Your task to perform on an android device: What's the weather? Image 0: 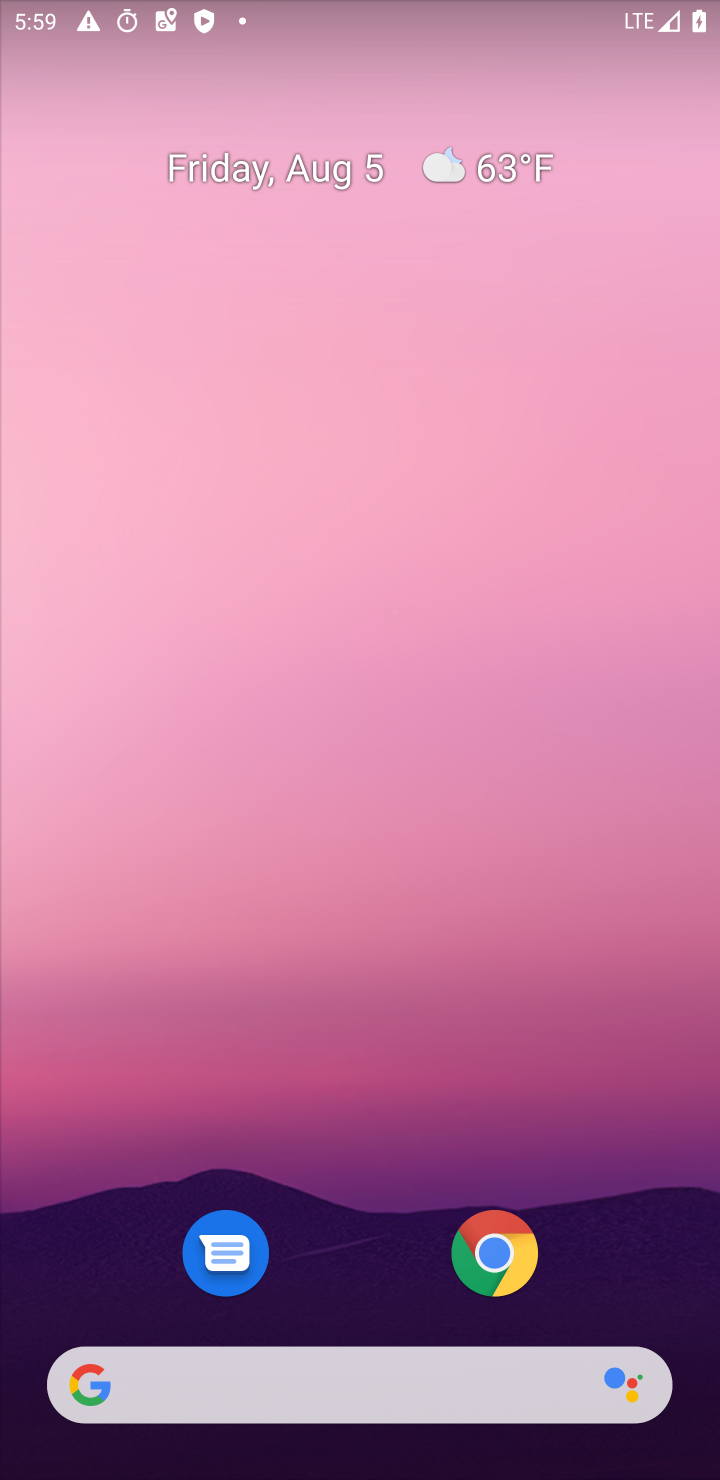
Step 0: click (311, 1381)
Your task to perform on an android device: What's the weather? Image 1: 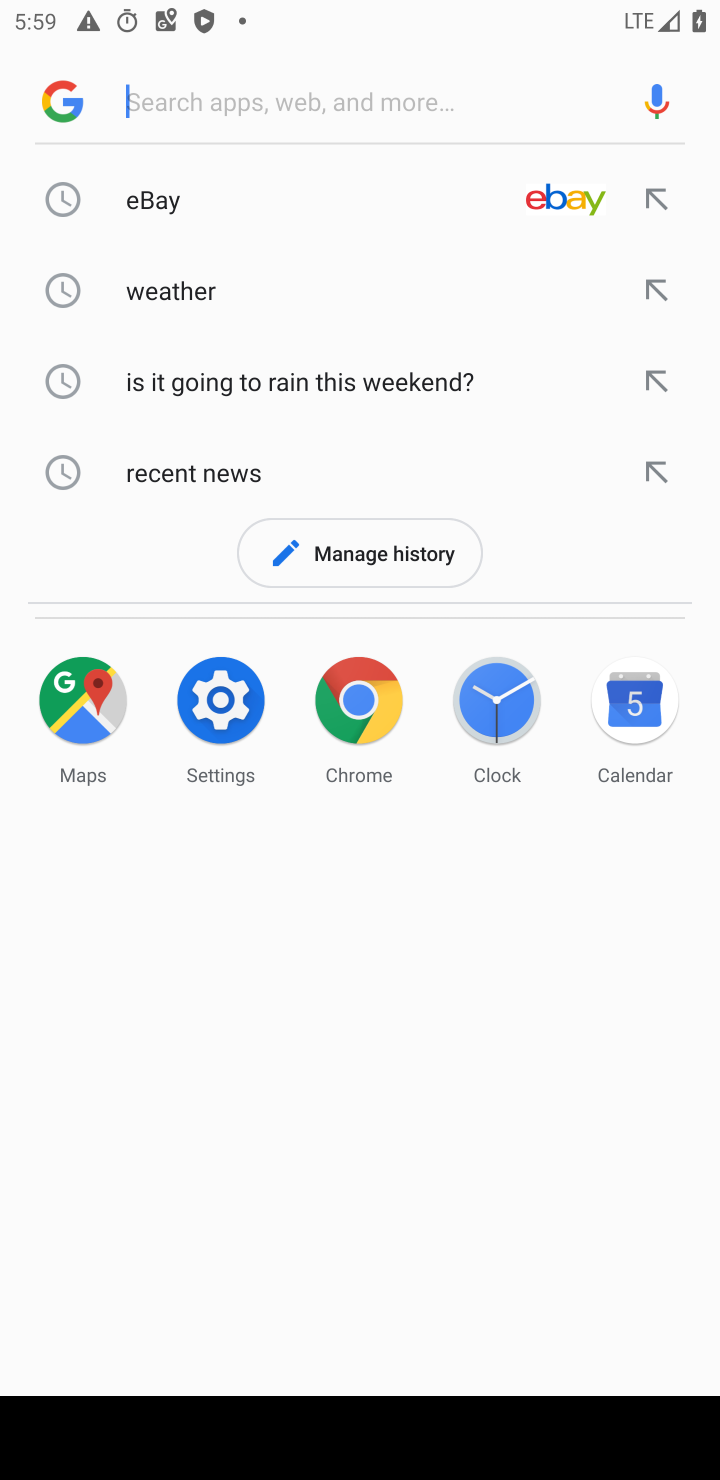
Step 1: type "what's the weather"
Your task to perform on an android device: What's the weather? Image 2: 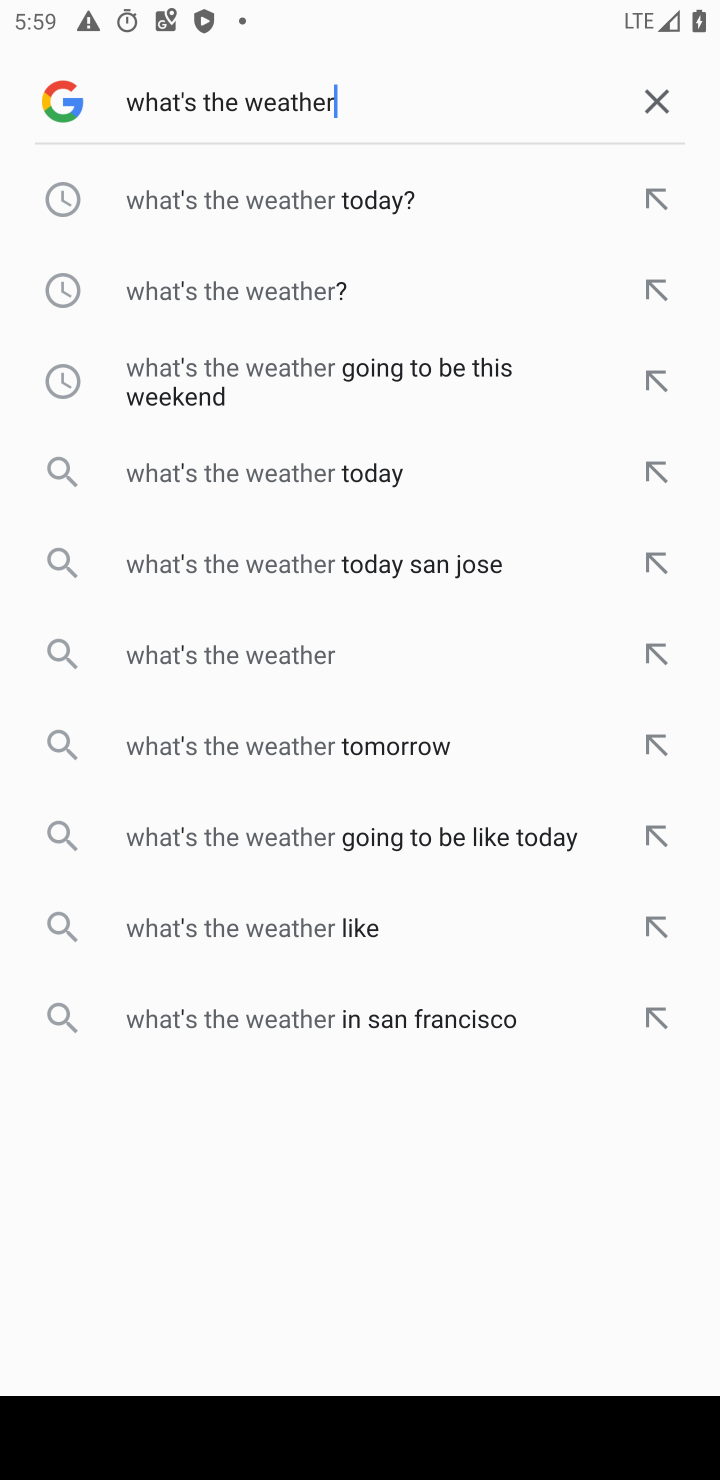
Step 2: click (315, 289)
Your task to perform on an android device: What's the weather? Image 3: 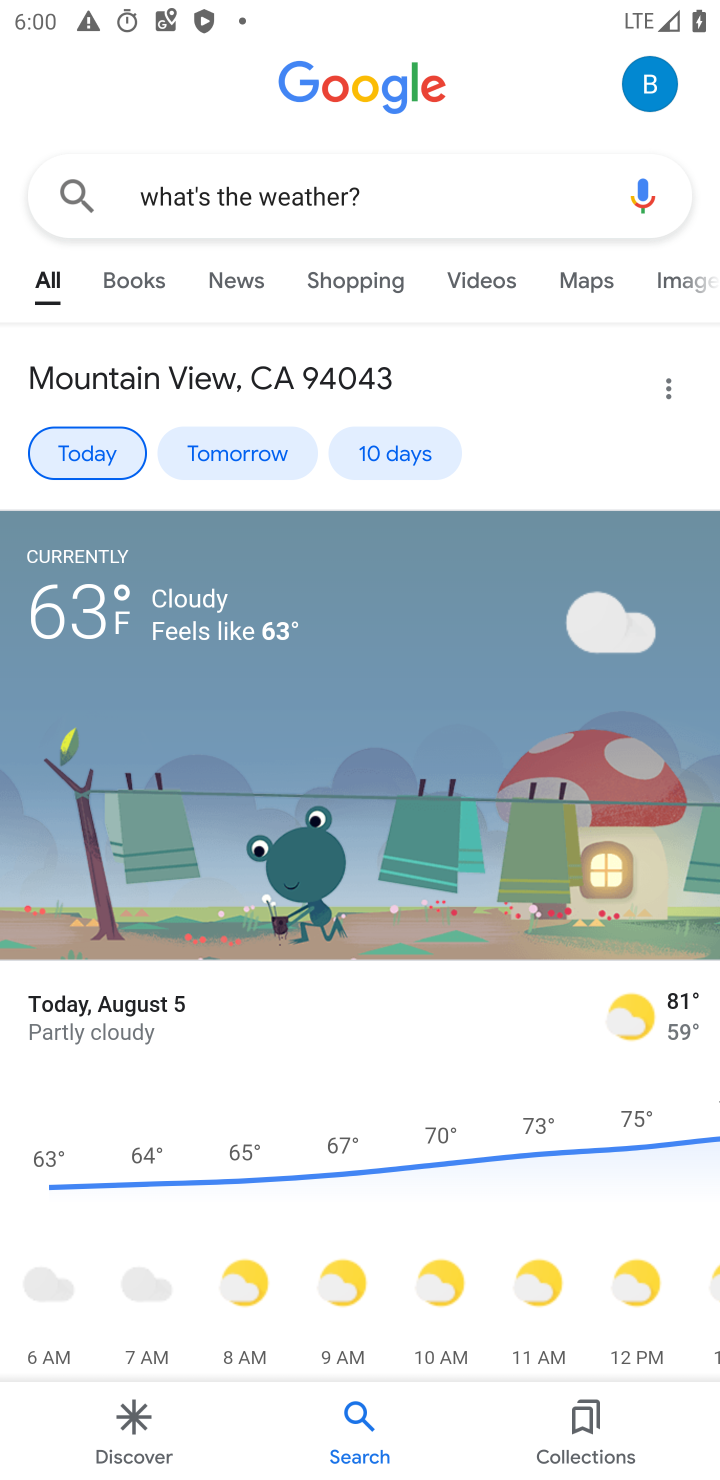
Step 3: task complete